Your task to perform on an android device: turn on improve location accuracy Image 0: 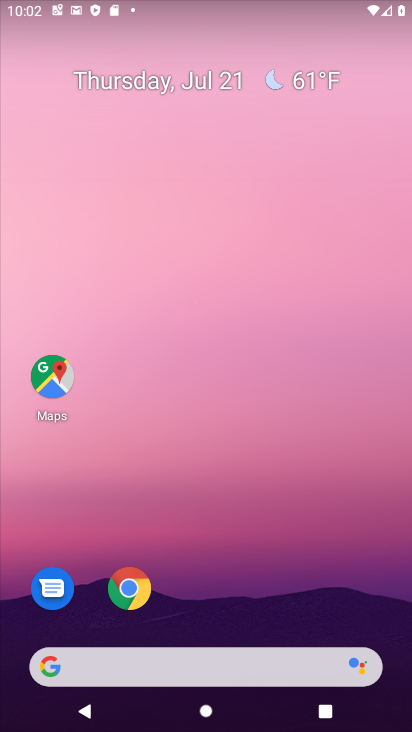
Step 0: drag from (255, 578) to (340, 10)
Your task to perform on an android device: turn on improve location accuracy Image 1: 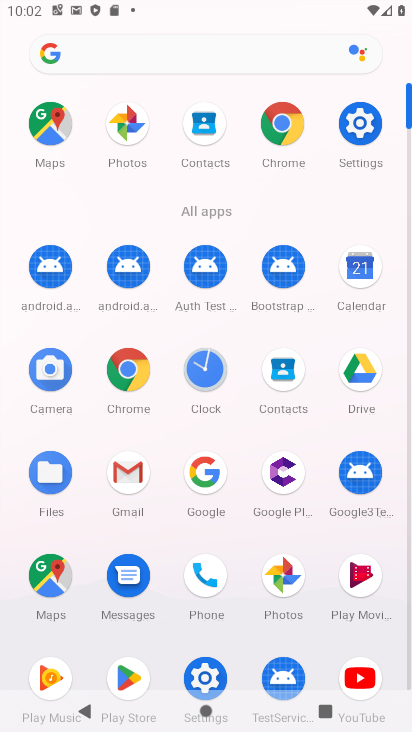
Step 1: click (372, 118)
Your task to perform on an android device: turn on improve location accuracy Image 2: 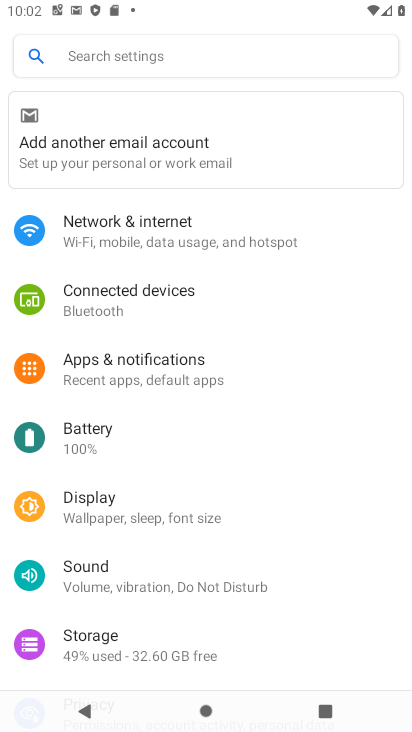
Step 2: drag from (162, 593) to (254, 205)
Your task to perform on an android device: turn on improve location accuracy Image 3: 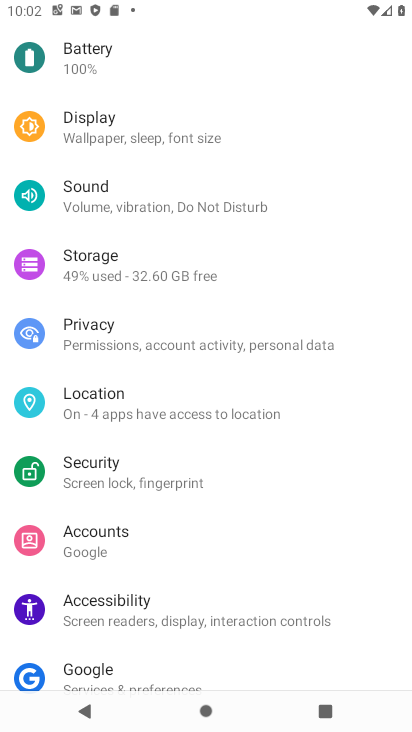
Step 3: click (118, 393)
Your task to perform on an android device: turn on improve location accuracy Image 4: 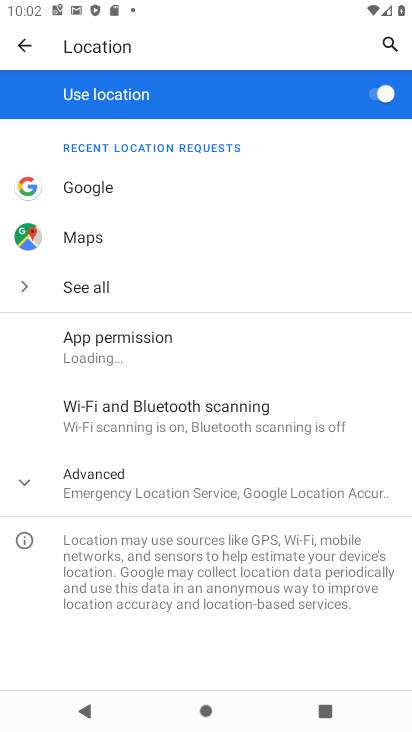
Step 4: click (151, 495)
Your task to perform on an android device: turn on improve location accuracy Image 5: 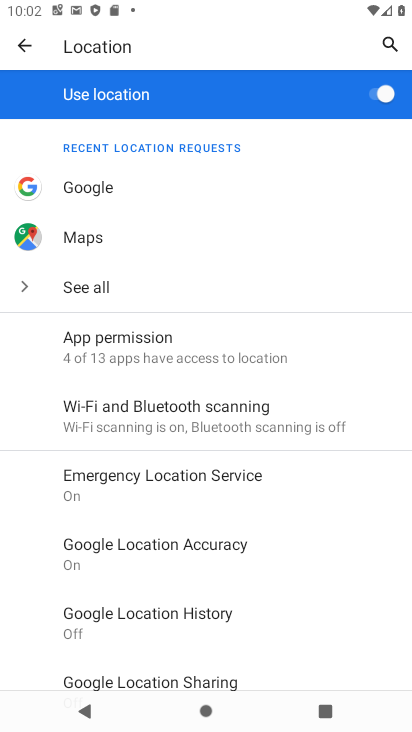
Step 5: click (189, 536)
Your task to perform on an android device: turn on improve location accuracy Image 6: 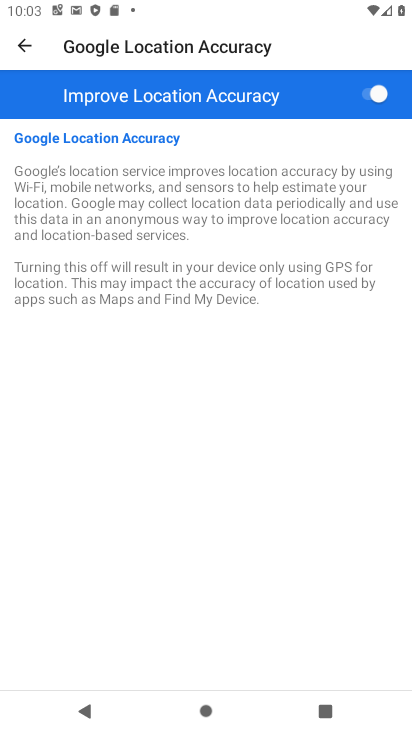
Step 6: task complete